Your task to perform on an android device: stop showing notifications on the lock screen Image 0: 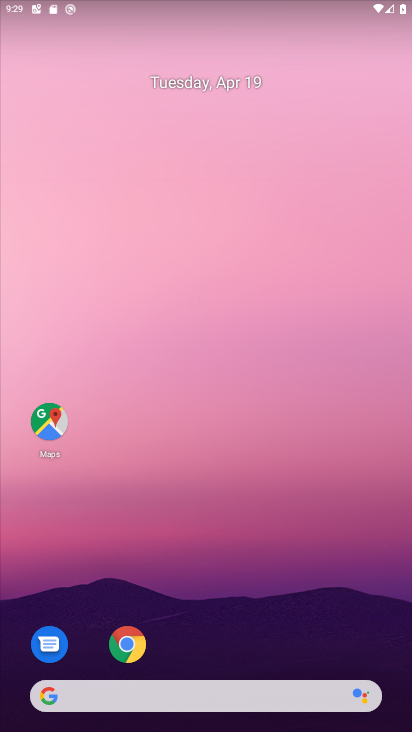
Step 0: drag from (272, 632) to (161, 93)
Your task to perform on an android device: stop showing notifications on the lock screen Image 1: 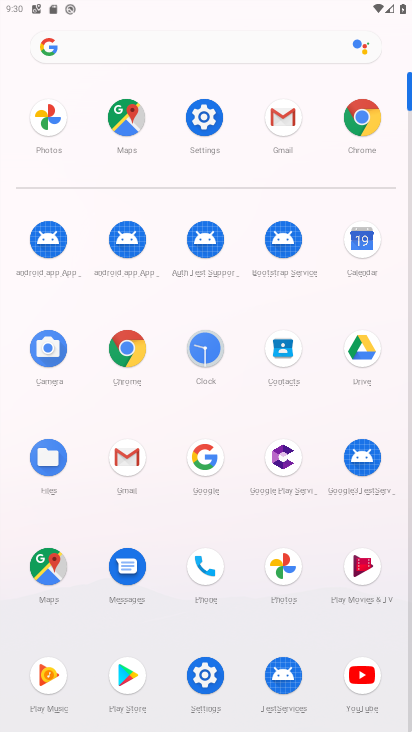
Step 1: click (194, 114)
Your task to perform on an android device: stop showing notifications on the lock screen Image 2: 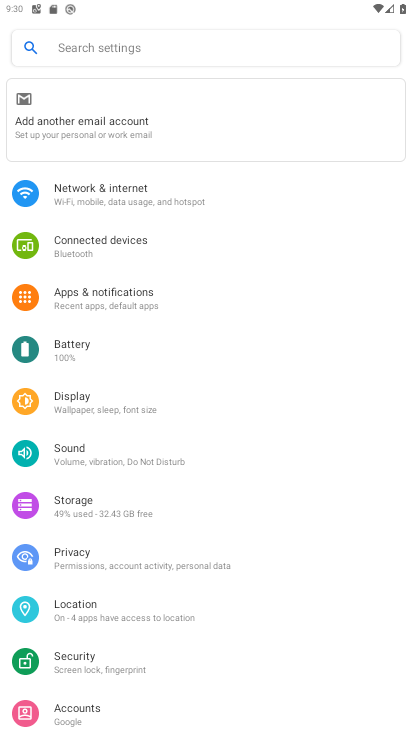
Step 2: click (126, 294)
Your task to perform on an android device: stop showing notifications on the lock screen Image 3: 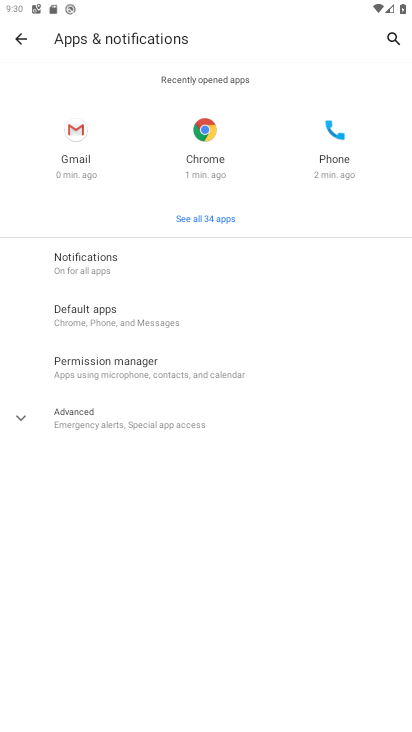
Step 3: click (183, 260)
Your task to perform on an android device: stop showing notifications on the lock screen Image 4: 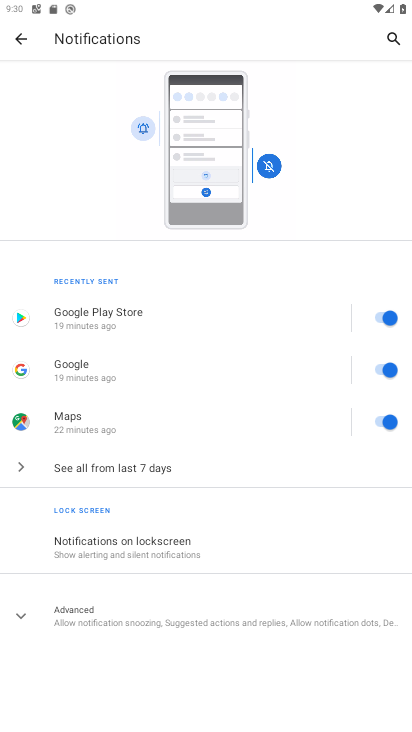
Step 4: click (172, 541)
Your task to perform on an android device: stop showing notifications on the lock screen Image 5: 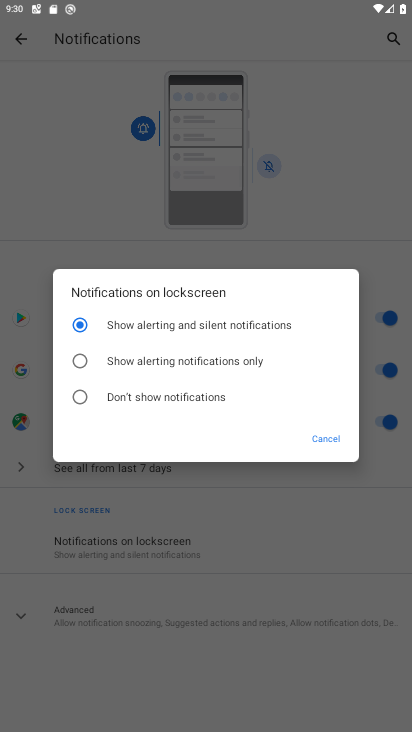
Step 5: click (154, 397)
Your task to perform on an android device: stop showing notifications on the lock screen Image 6: 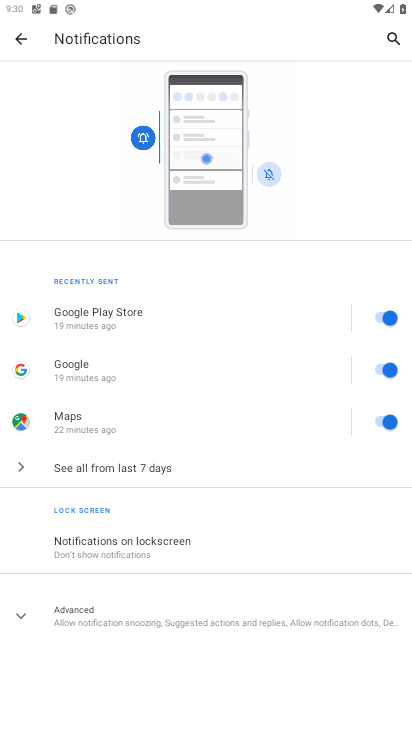
Step 6: task complete